Your task to perform on an android device: What's the weather? Image 0: 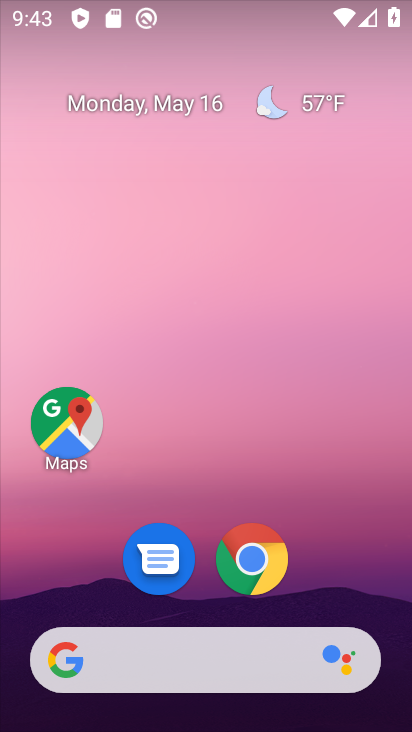
Step 0: click (321, 105)
Your task to perform on an android device: What's the weather? Image 1: 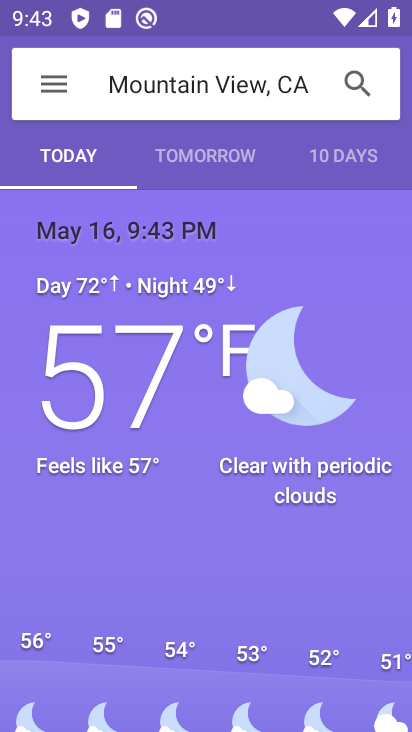
Step 1: task complete